Your task to perform on an android device: add a label to a message in the gmail app Image 0: 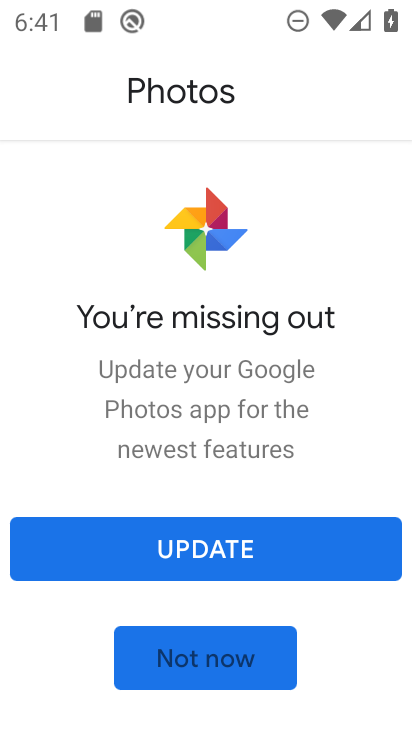
Step 0: press home button
Your task to perform on an android device: add a label to a message in the gmail app Image 1: 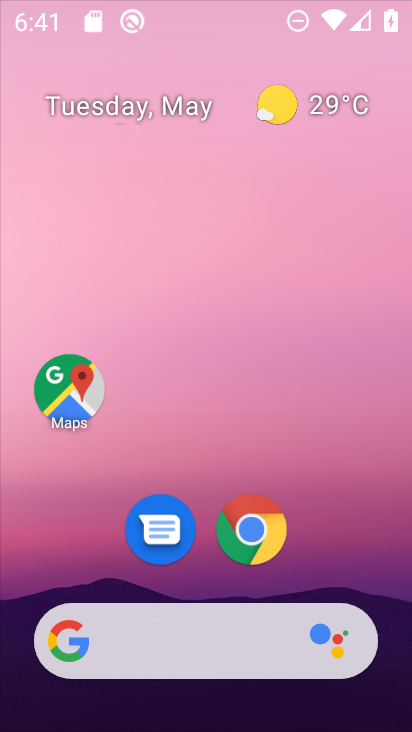
Step 1: drag from (396, 590) to (368, 8)
Your task to perform on an android device: add a label to a message in the gmail app Image 2: 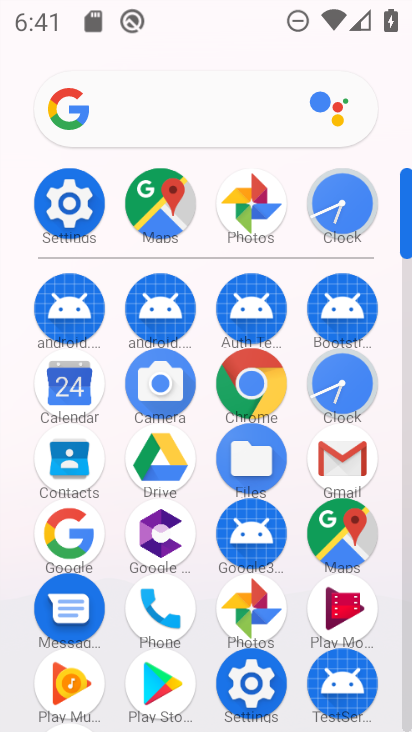
Step 2: click (346, 441)
Your task to perform on an android device: add a label to a message in the gmail app Image 3: 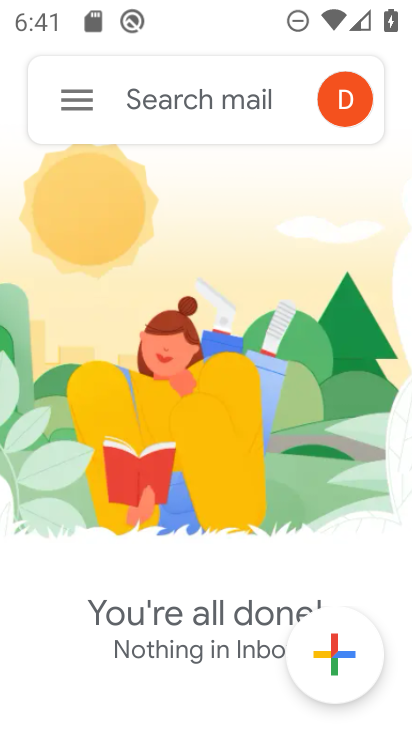
Step 3: task complete